Your task to perform on an android device: turn on location history Image 0: 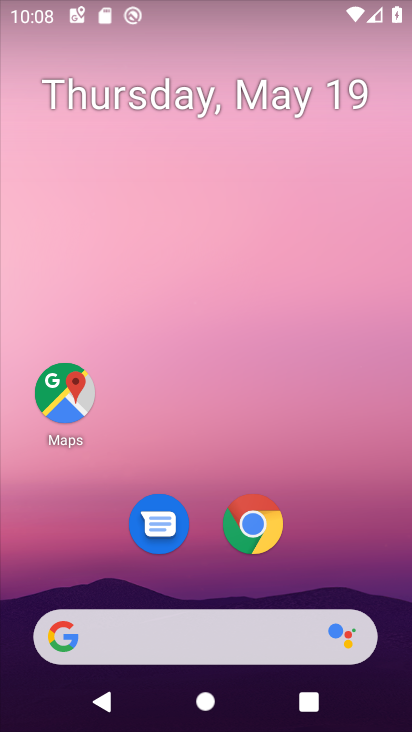
Step 0: drag from (227, 477) to (256, 18)
Your task to perform on an android device: turn on location history Image 1: 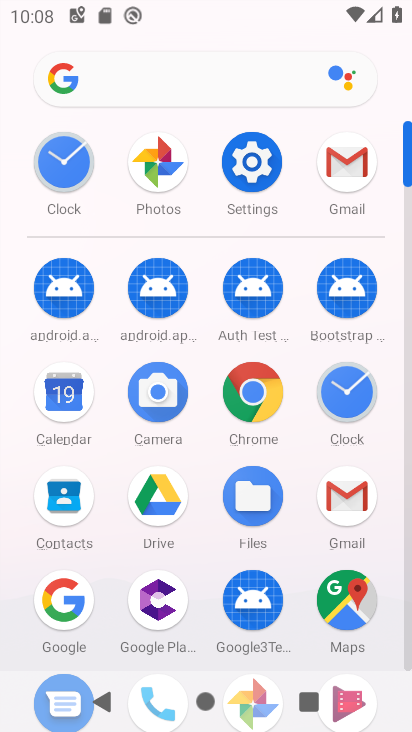
Step 1: click (242, 166)
Your task to perform on an android device: turn on location history Image 2: 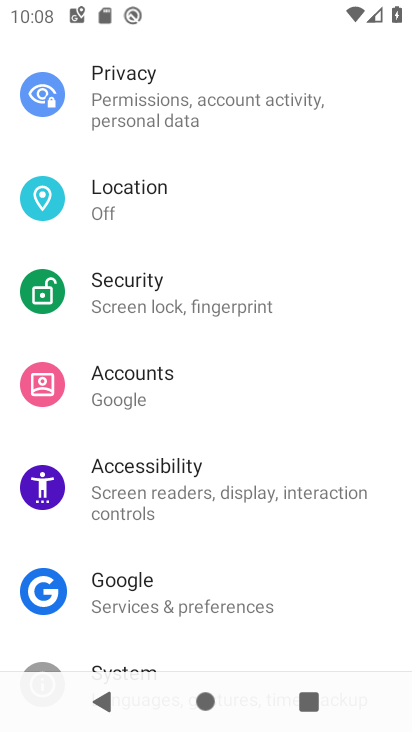
Step 2: click (212, 204)
Your task to perform on an android device: turn on location history Image 3: 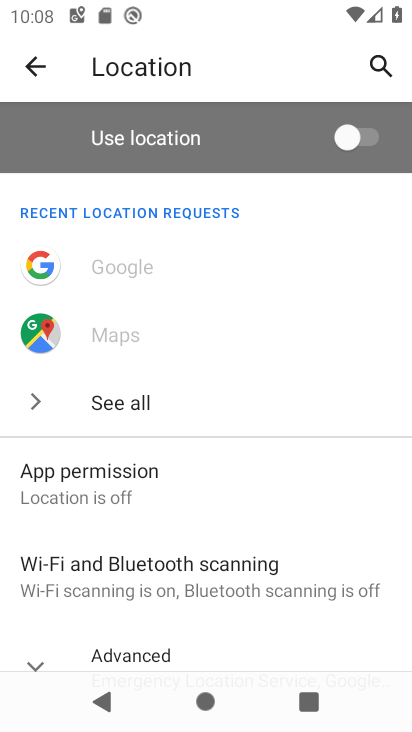
Step 3: drag from (245, 493) to (276, 192)
Your task to perform on an android device: turn on location history Image 4: 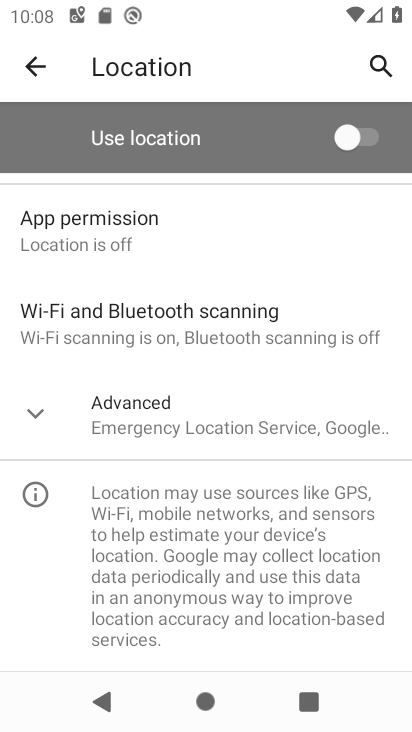
Step 4: click (33, 413)
Your task to perform on an android device: turn on location history Image 5: 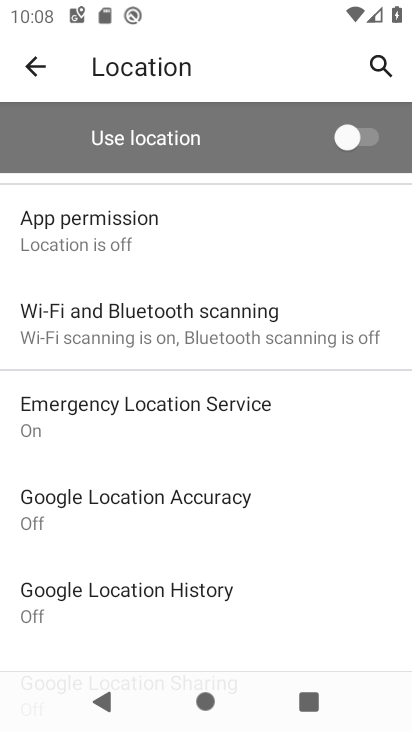
Step 5: click (129, 605)
Your task to perform on an android device: turn on location history Image 6: 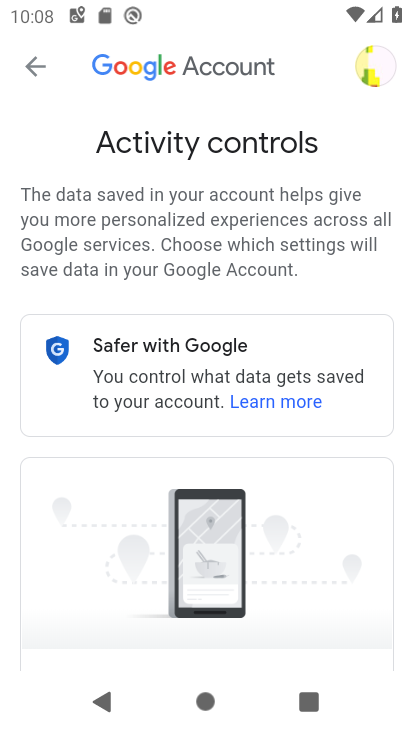
Step 6: drag from (315, 542) to (317, 126)
Your task to perform on an android device: turn on location history Image 7: 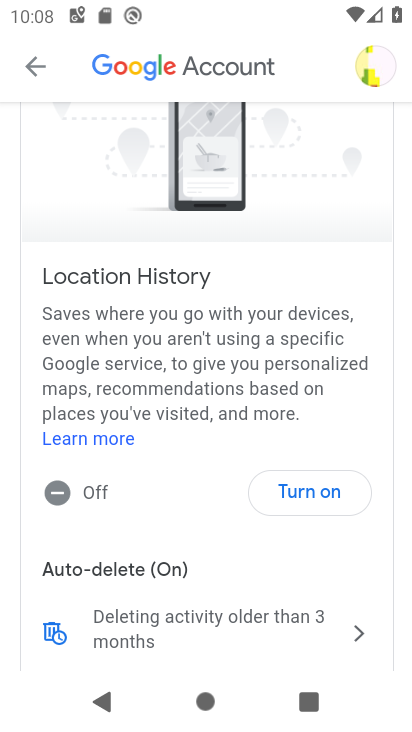
Step 7: click (312, 494)
Your task to perform on an android device: turn on location history Image 8: 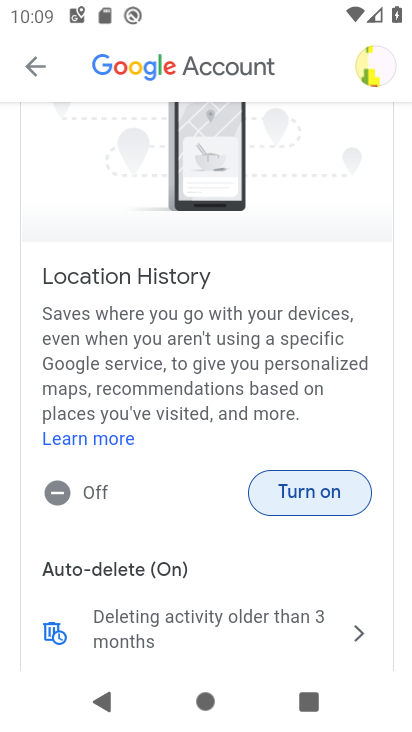
Step 8: click (295, 492)
Your task to perform on an android device: turn on location history Image 9: 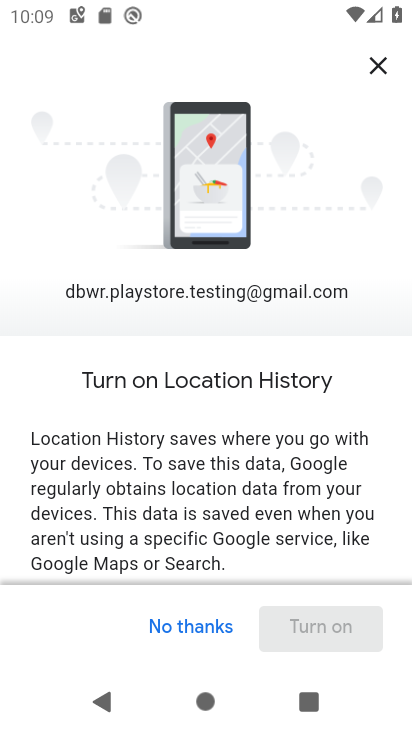
Step 9: drag from (295, 490) to (321, 84)
Your task to perform on an android device: turn on location history Image 10: 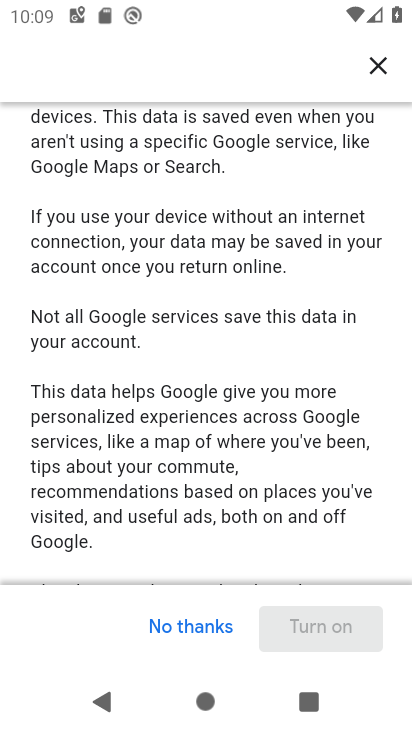
Step 10: drag from (276, 370) to (312, 53)
Your task to perform on an android device: turn on location history Image 11: 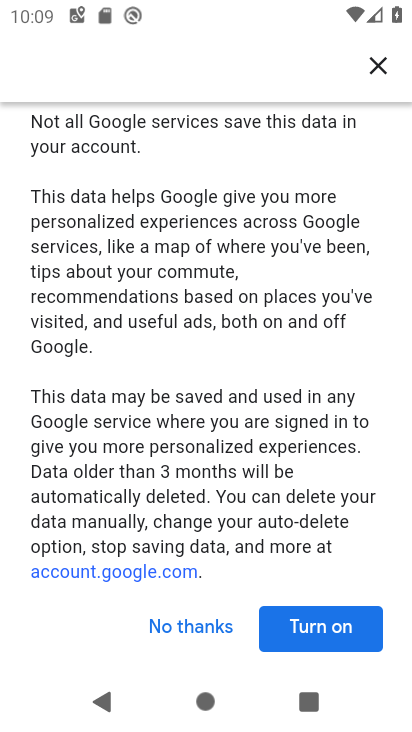
Step 11: click (306, 631)
Your task to perform on an android device: turn on location history Image 12: 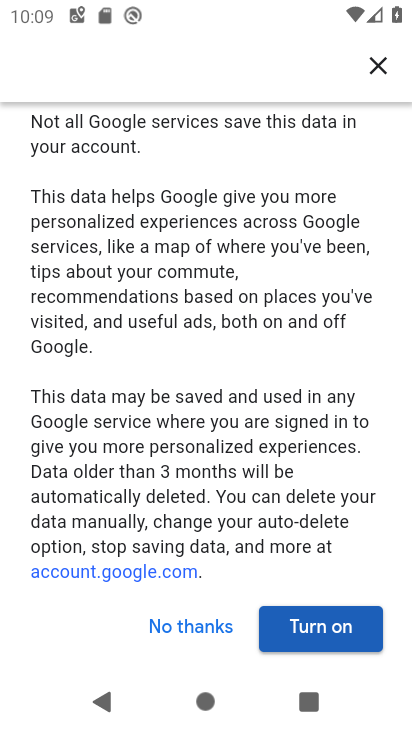
Step 12: click (312, 626)
Your task to perform on an android device: turn on location history Image 13: 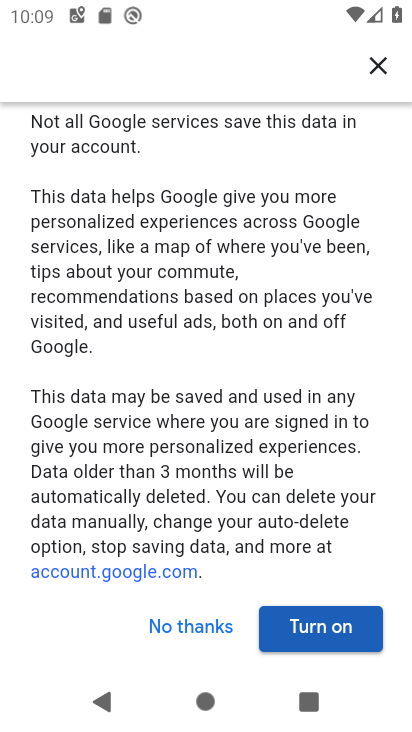
Step 13: click (312, 625)
Your task to perform on an android device: turn on location history Image 14: 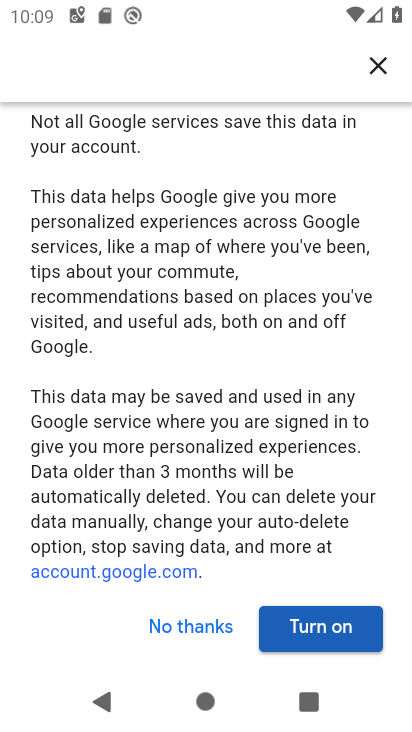
Step 14: click (312, 625)
Your task to perform on an android device: turn on location history Image 15: 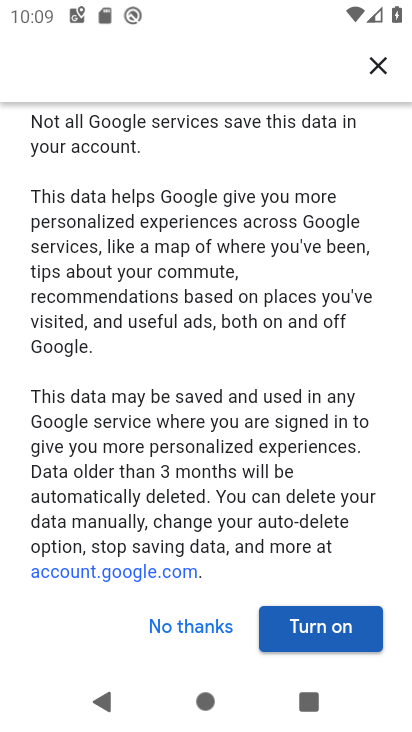
Step 15: click (312, 623)
Your task to perform on an android device: turn on location history Image 16: 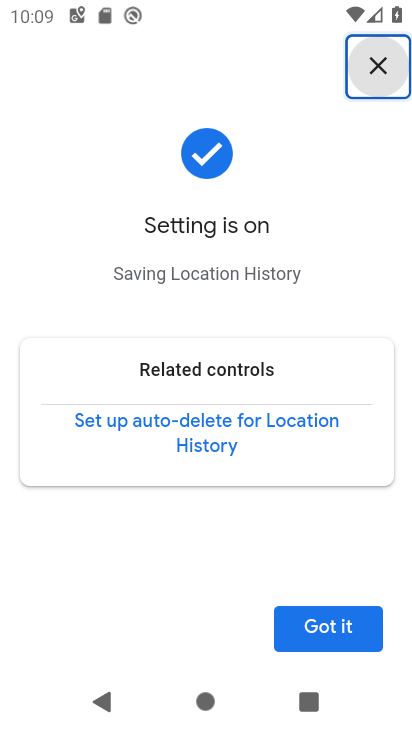
Step 16: click (338, 625)
Your task to perform on an android device: turn on location history Image 17: 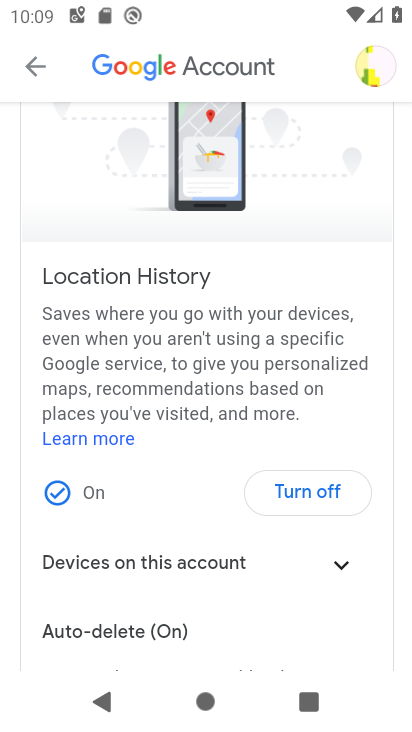
Step 17: task complete